Your task to perform on an android device: Open Reddit.com Image 0: 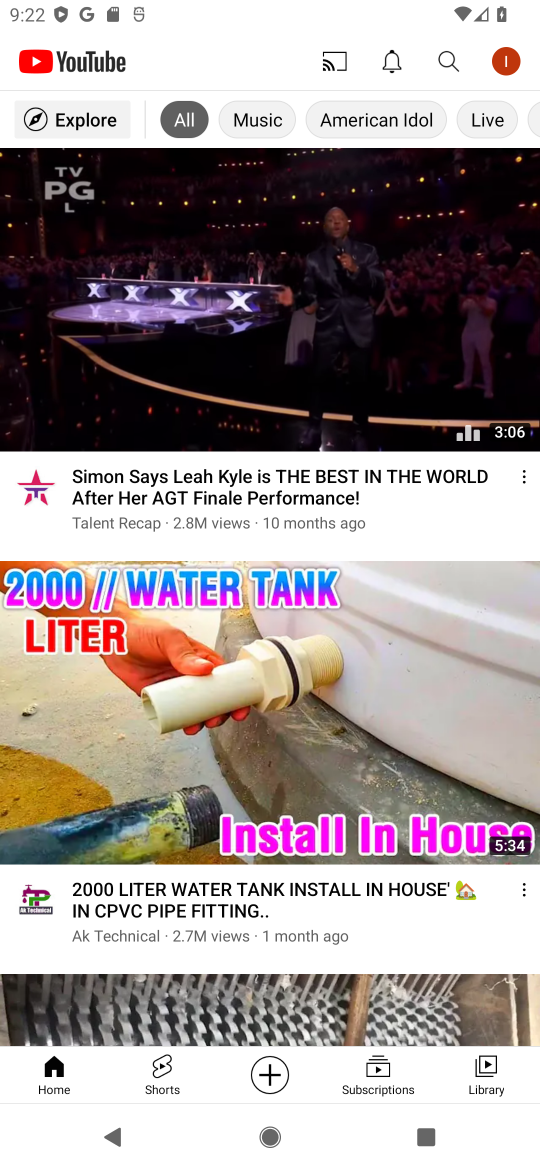
Step 0: press home button
Your task to perform on an android device: Open Reddit.com Image 1: 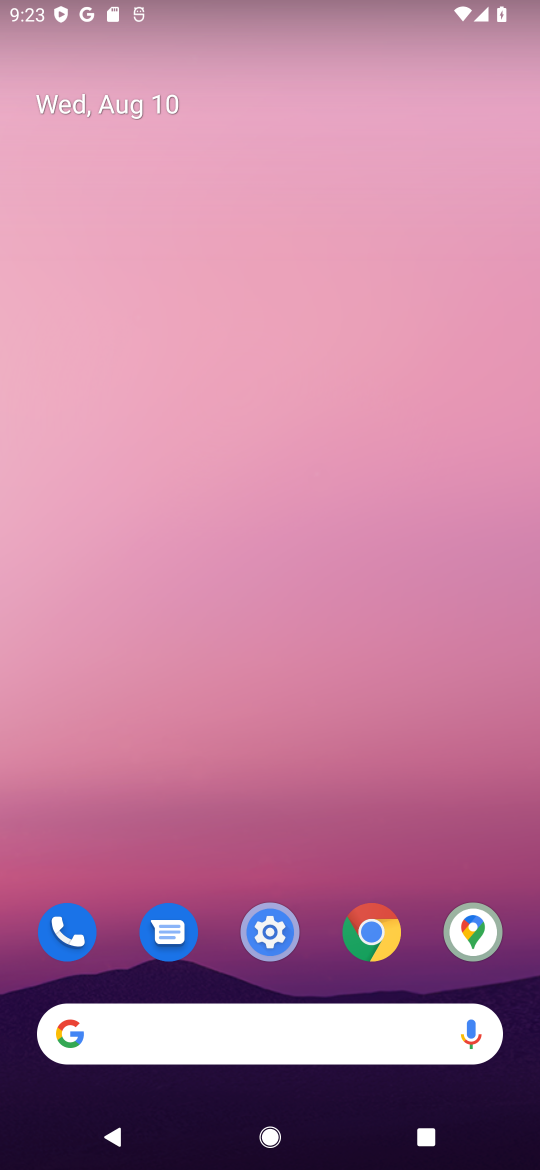
Step 1: click (366, 927)
Your task to perform on an android device: Open Reddit.com Image 2: 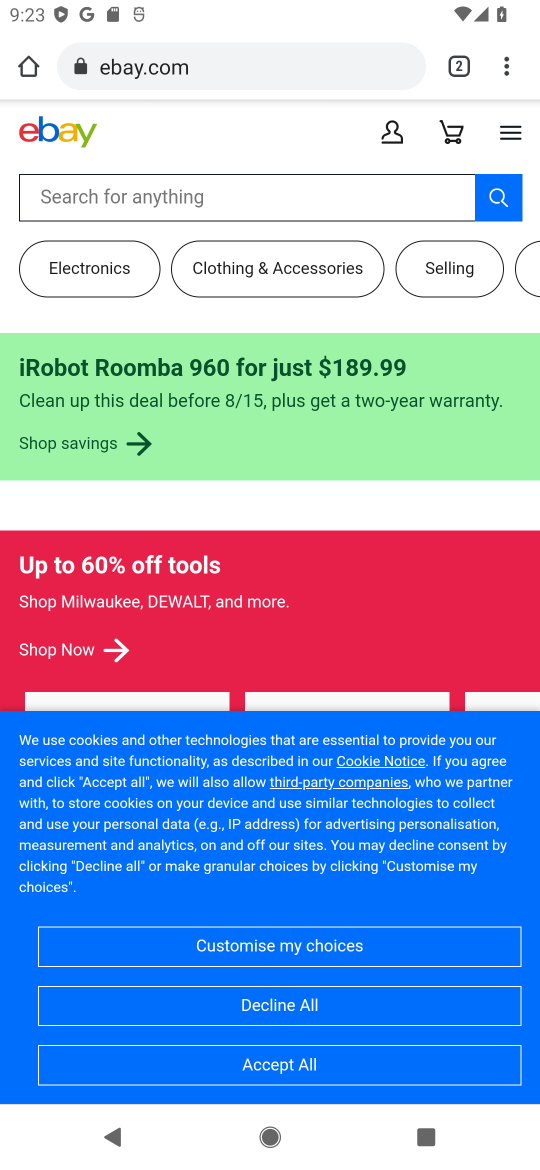
Step 2: click (486, 60)
Your task to perform on an android device: Open Reddit.com Image 3: 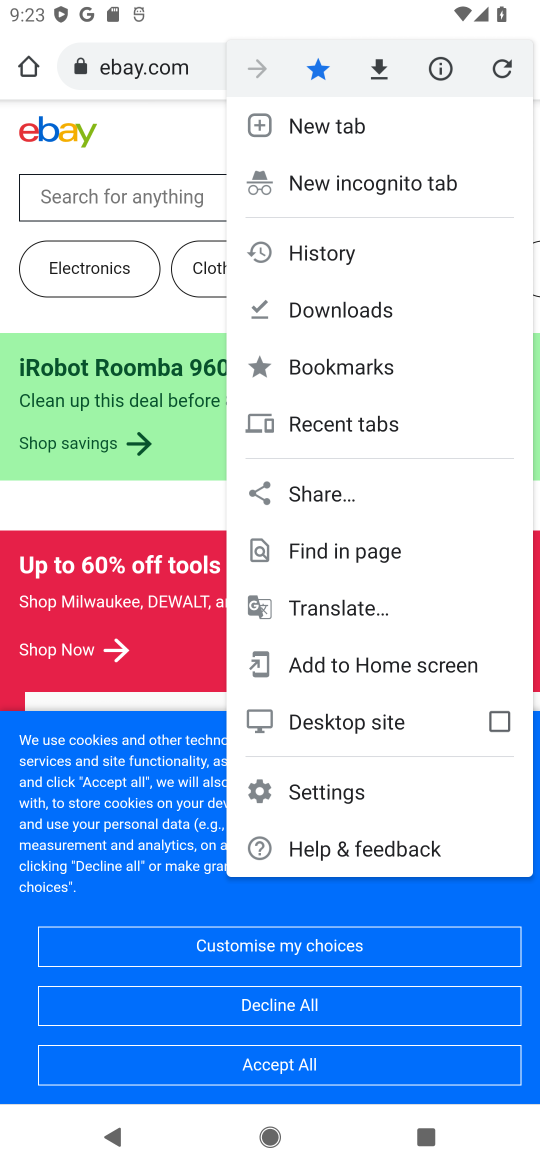
Step 3: click (298, 124)
Your task to perform on an android device: Open Reddit.com Image 4: 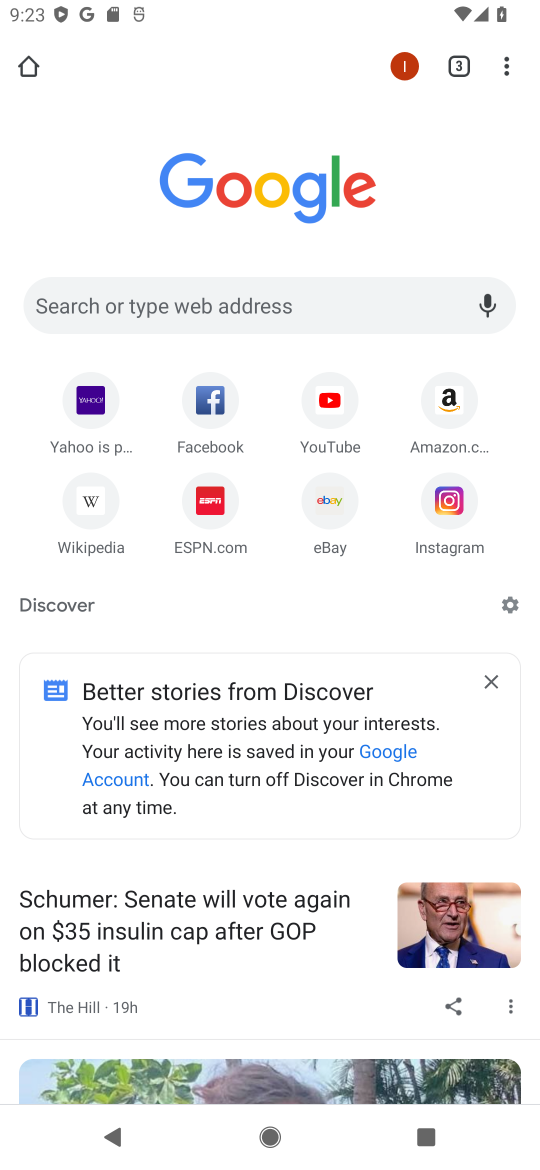
Step 4: click (210, 296)
Your task to perform on an android device: Open Reddit.com Image 5: 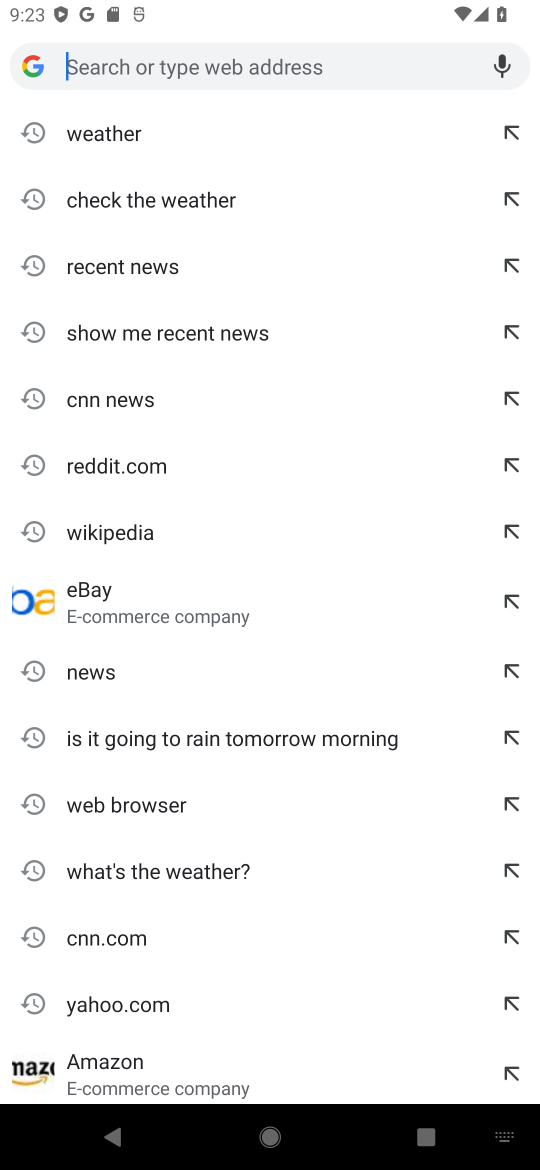
Step 5: click (122, 446)
Your task to perform on an android device: Open Reddit.com Image 6: 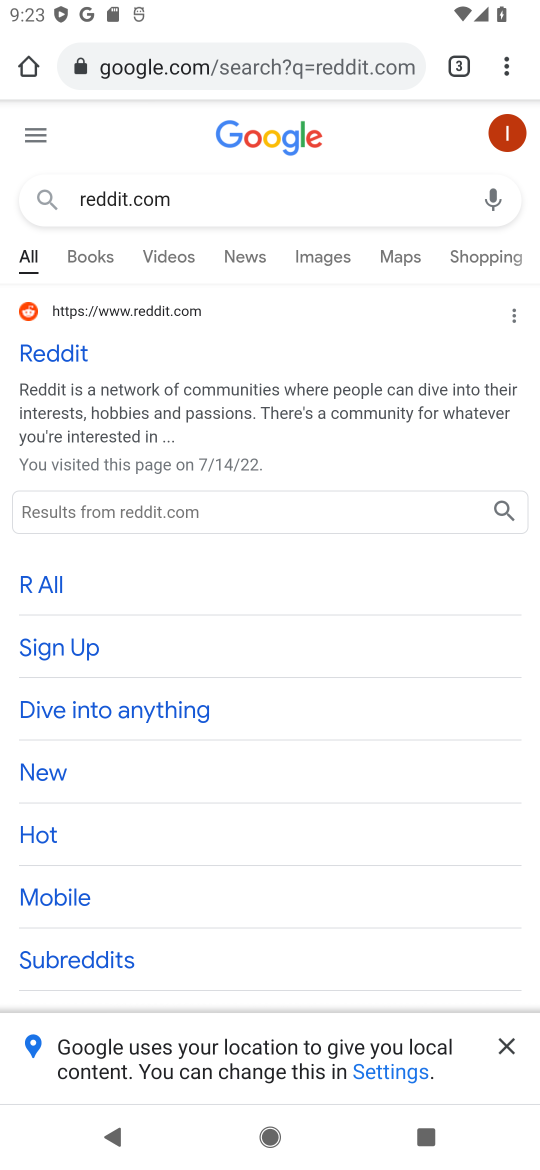
Step 6: click (41, 352)
Your task to perform on an android device: Open Reddit.com Image 7: 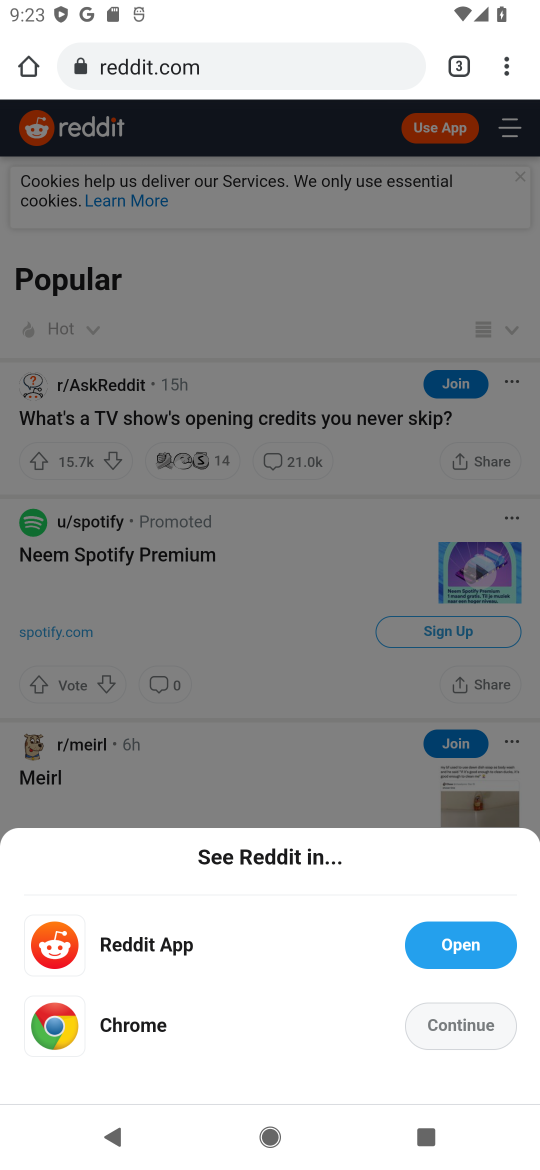
Step 7: click (451, 1023)
Your task to perform on an android device: Open Reddit.com Image 8: 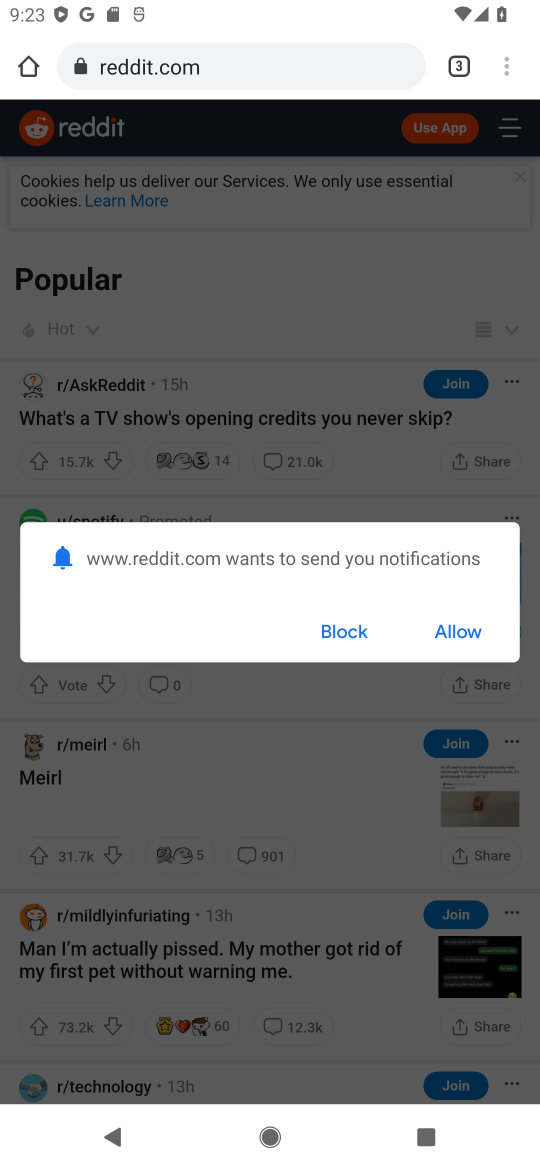
Step 8: click (447, 620)
Your task to perform on an android device: Open Reddit.com Image 9: 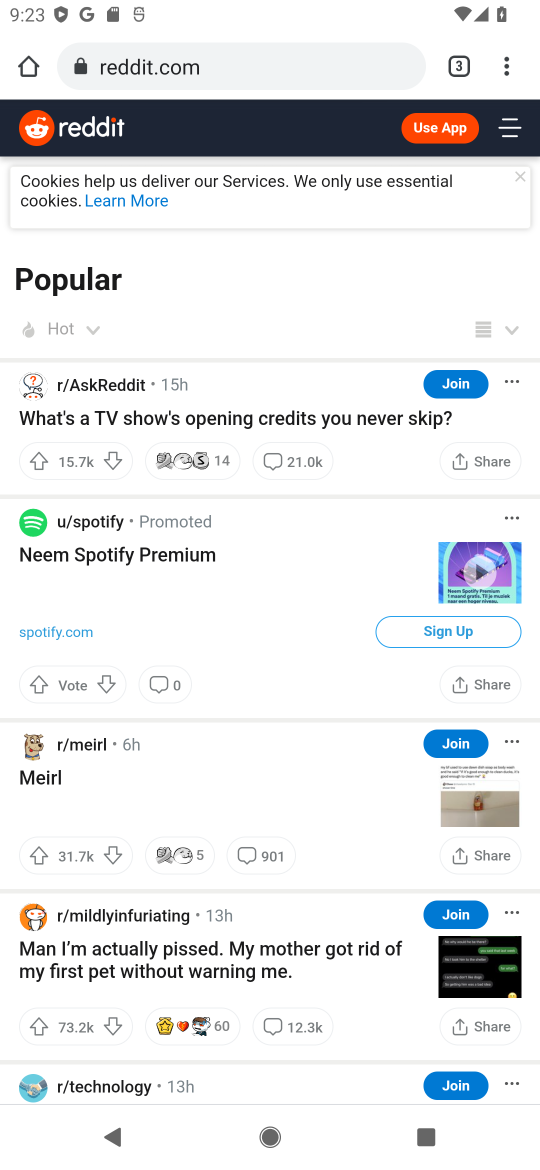
Step 9: task complete